Your task to perform on an android device: toggle pop-ups in chrome Image 0: 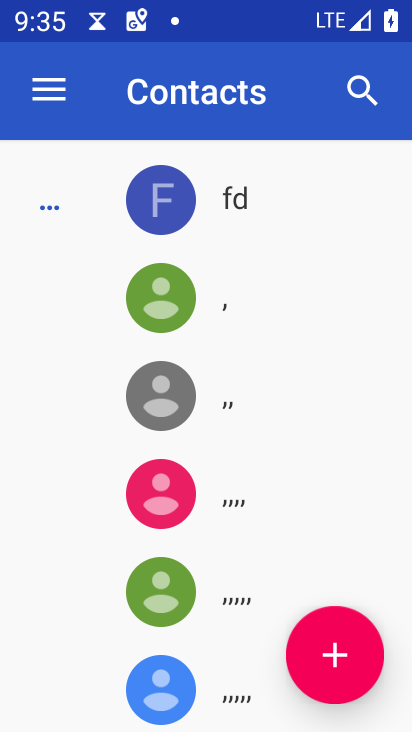
Step 0: press back button
Your task to perform on an android device: toggle pop-ups in chrome Image 1: 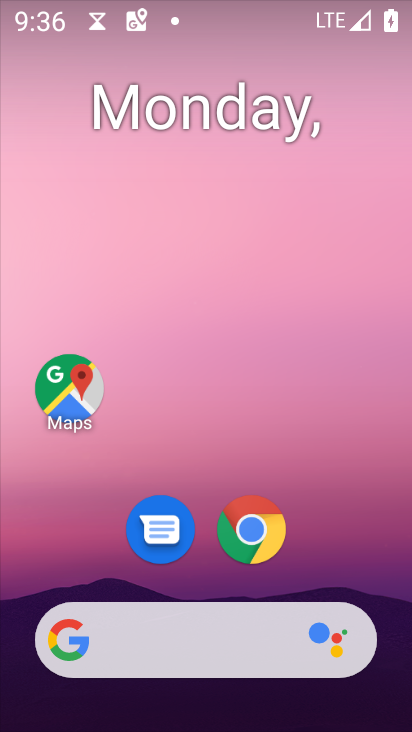
Step 1: drag from (313, 662) to (206, 255)
Your task to perform on an android device: toggle pop-ups in chrome Image 2: 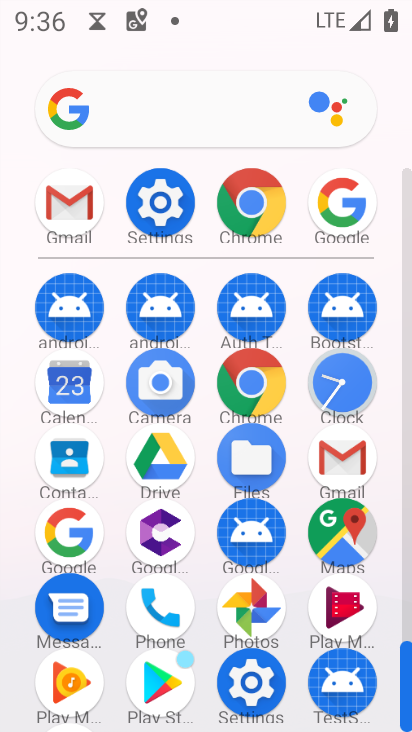
Step 2: click (260, 208)
Your task to perform on an android device: toggle pop-ups in chrome Image 3: 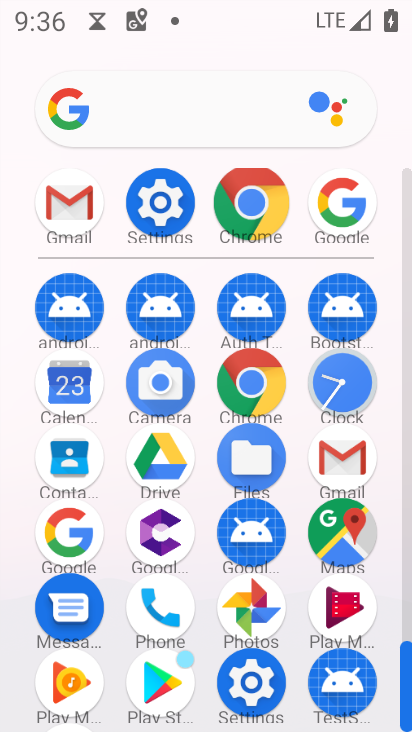
Step 3: click (261, 209)
Your task to perform on an android device: toggle pop-ups in chrome Image 4: 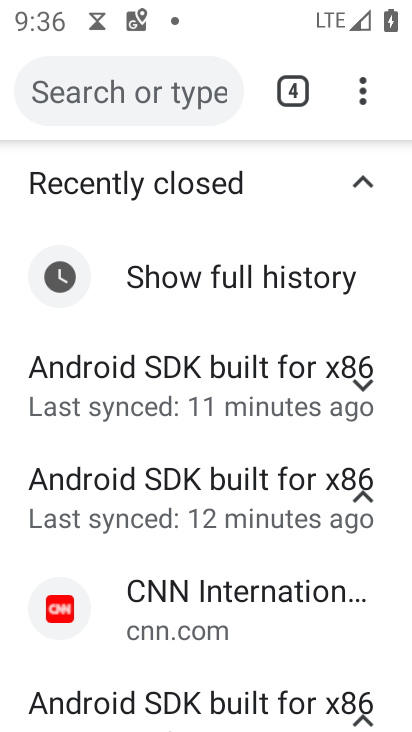
Step 4: click (356, 84)
Your task to perform on an android device: toggle pop-ups in chrome Image 5: 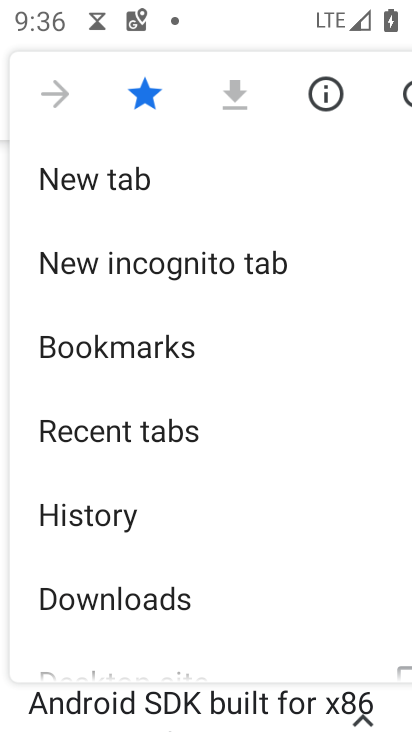
Step 5: drag from (180, 573) to (137, 238)
Your task to perform on an android device: toggle pop-ups in chrome Image 6: 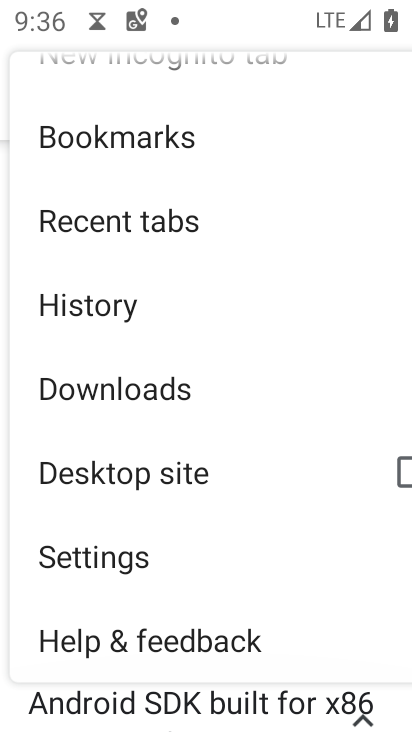
Step 6: drag from (184, 507) to (145, 169)
Your task to perform on an android device: toggle pop-ups in chrome Image 7: 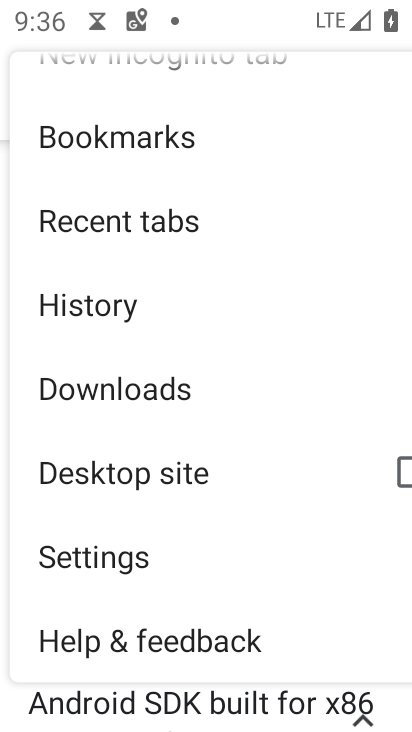
Step 7: click (90, 558)
Your task to perform on an android device: toggle pop-ups in chrome Image 8: 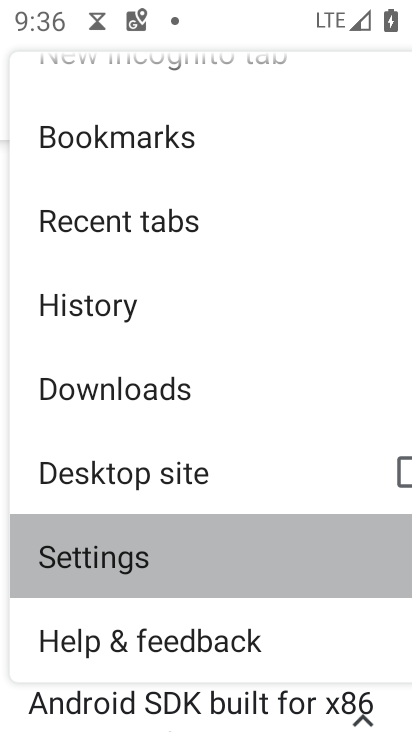
Step 8: click (90, 558)
Your task to perform on an android device: toggle pop-ups in chrome Image 9: 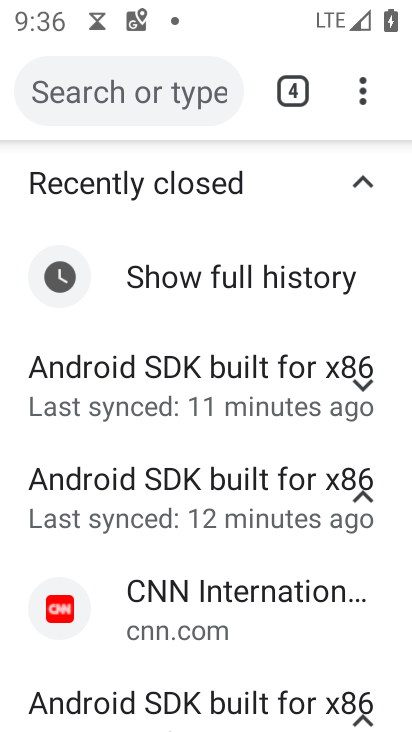
Step 9: click (90, 558)
Your task to perform on an android device: toggle pop-ups in chrome Image 10: 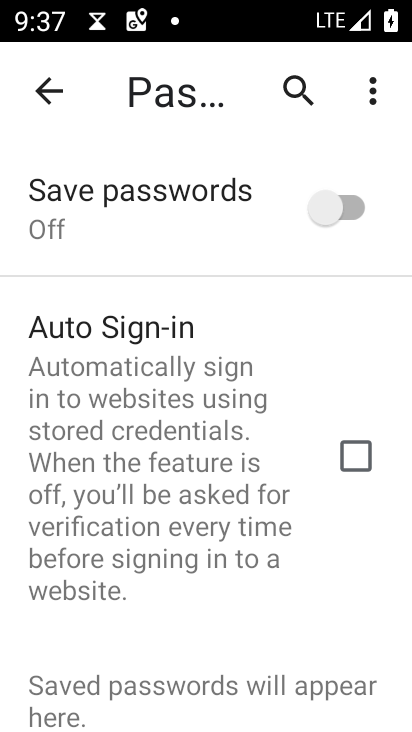
Step 10: click (46, 90)
Your task to perform on an android device: toggle pop-ups in chrome Image 11: 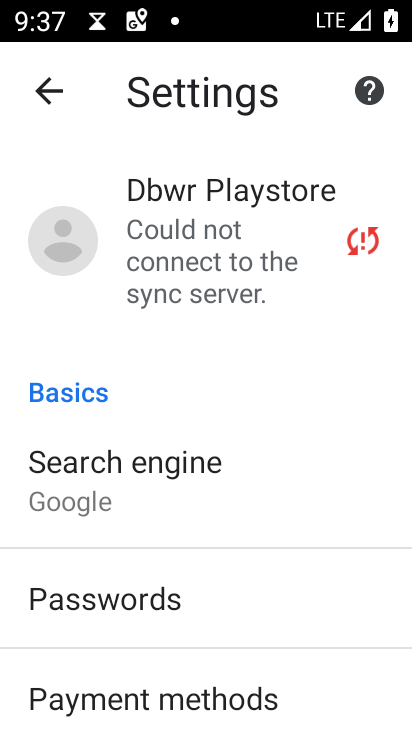
Step 11: drag from (229, 565) to (242, 140)
Your task to perform on an android device: toggle pop-ups in chrome Image 12: 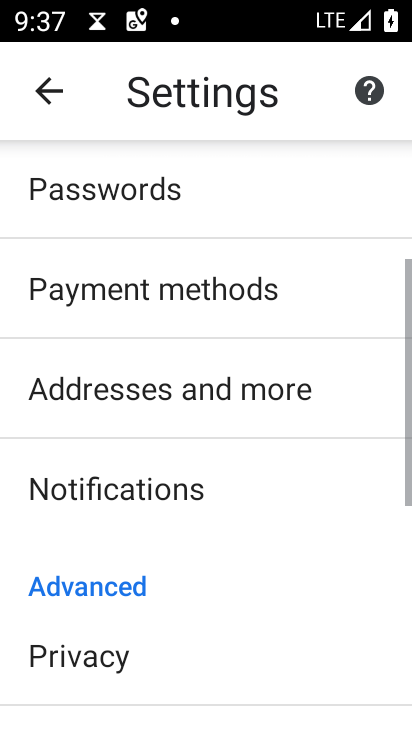
Step 12: drag from (308, 546) to (259, 189)
Your task to perform on an android device: toggle pop-ups in chrome Image 13: 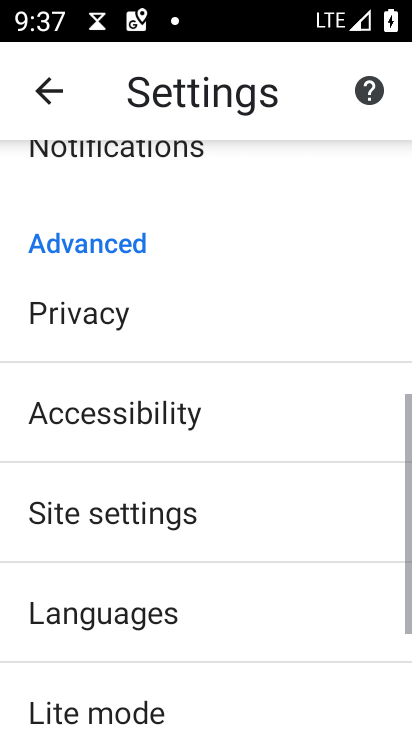
Step 13: drag from (251, 476) to (241, 125)
Your task to perform on an android device: toggle pop-ups in chrome Image 14: 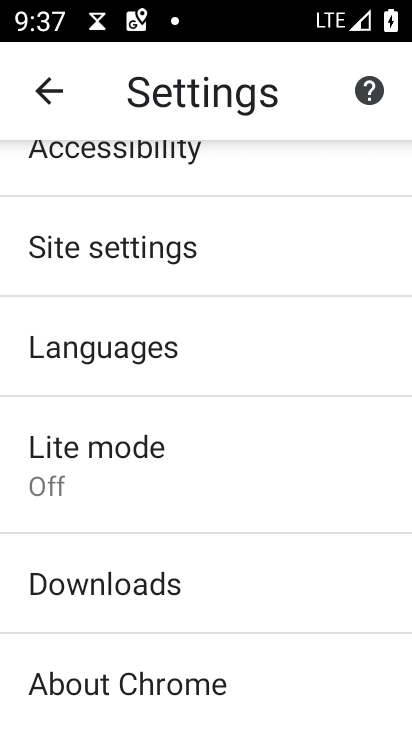
Step 14: click (96, 223)
Your task to perform on an android device: toggle pop-ups in chrome Image 15: 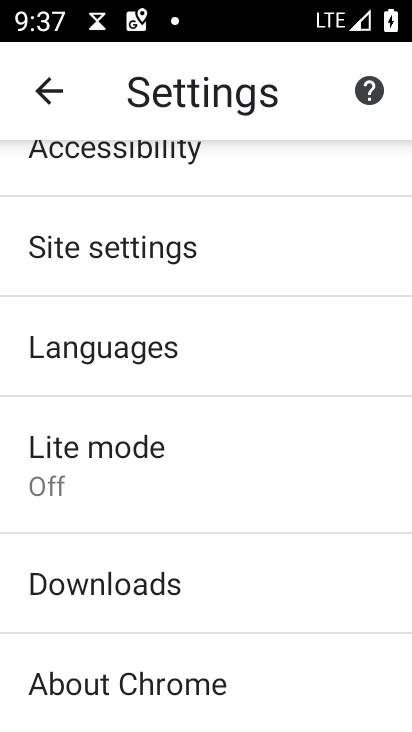
Step 15: click (100, 229)
Your task to perform on an android device: toggle pop-ups in chrome Image 16: 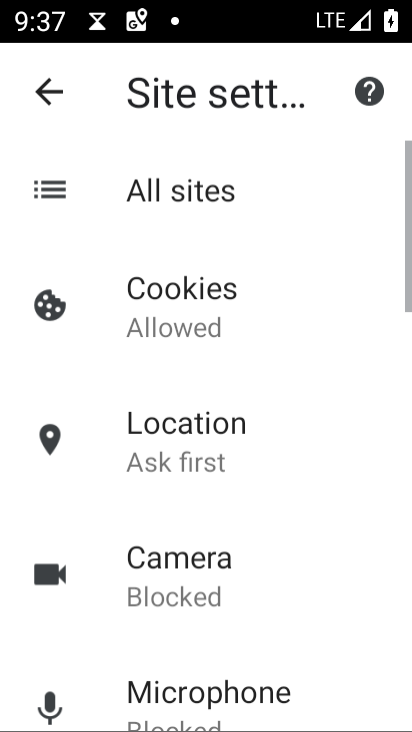
Step 16: click (108, 239)
Your task to perform on an android device: toggle pop-ups in chrome Image 17: 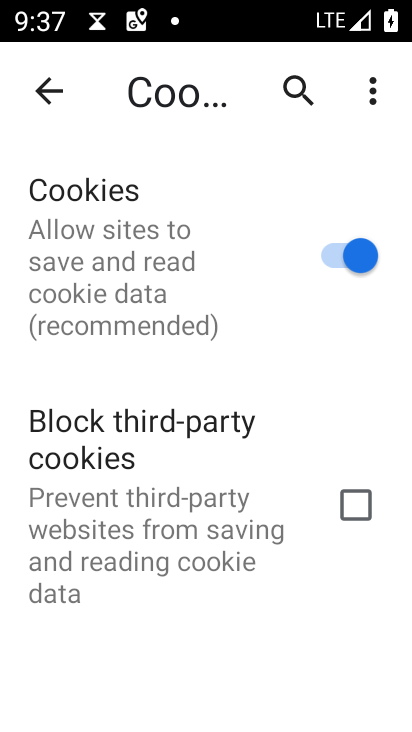
Step 17: click (48, 110)
Your task to perform on an android device: toggle pop-ups in chrome Image 18: 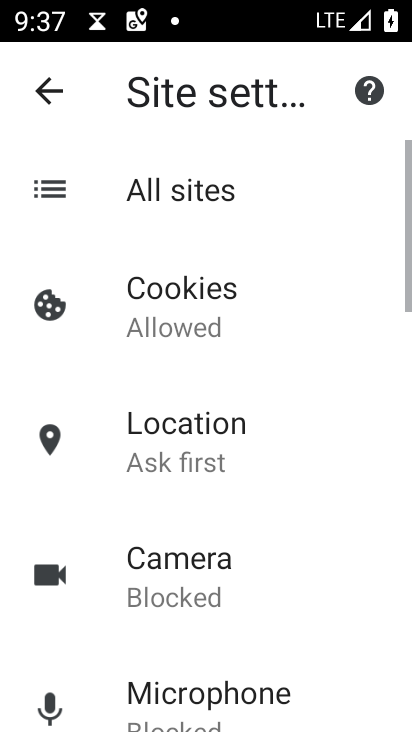
Step 18: drag from (207, 494) to (254, 192)
Your task to perform on an android device: toggle pop-ups in chrome Image 19: 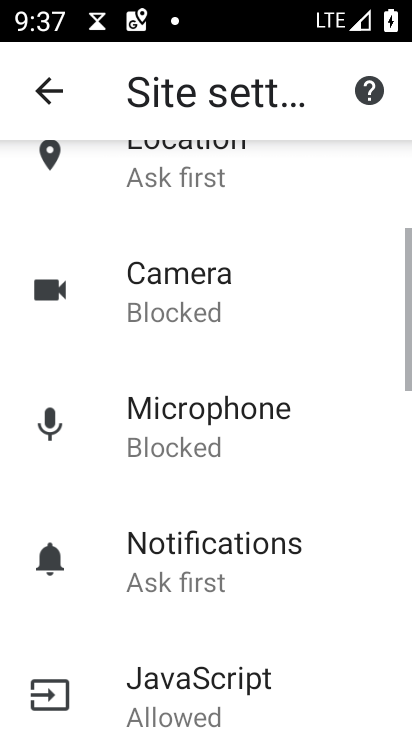
Step 19: drag from (265, 502) to (235, 144)
Your task to perform on an android device: toggle pop-ups in chrome Image 20: 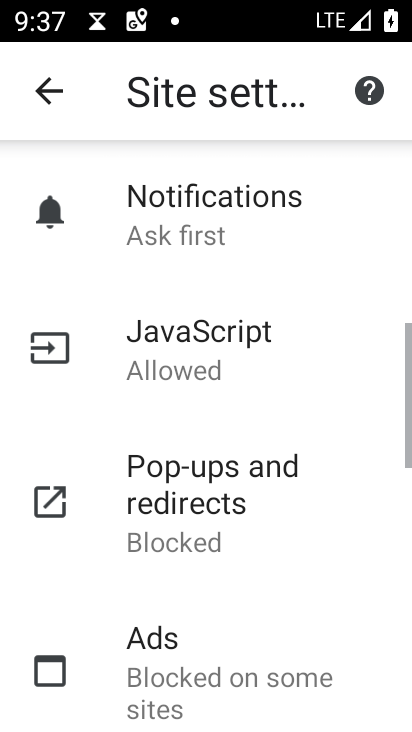
Step 20: drag from (251, 529) to (249, 222)
Your task to perform on an android device: toggle pop-ups in chrome Image 21: 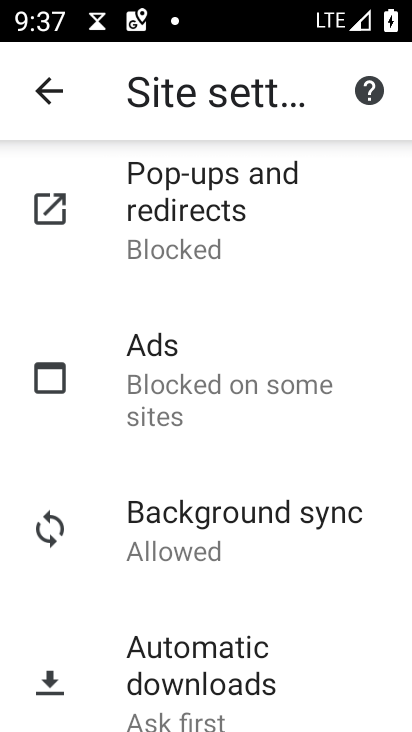
Step 21: drag from (216, 619) to (163, 197)
Your task to perform on an android device: toggle pop-ups in chrome Image 22: 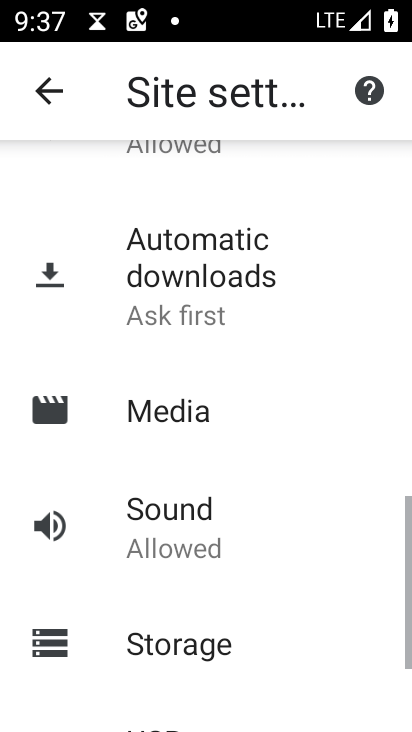
Step 22: drag from (127, 513) to (128, 181)
Your task to perform on an android device: toggle pop-ups in chrome Image 23: 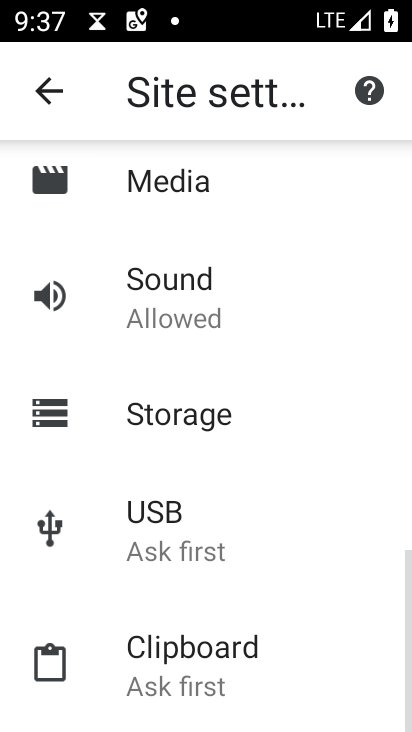
Step 23: drag from (219, 496) to (190, 217)
Your task to perform on an android device: toggle pop-ups in chrome Image 24: 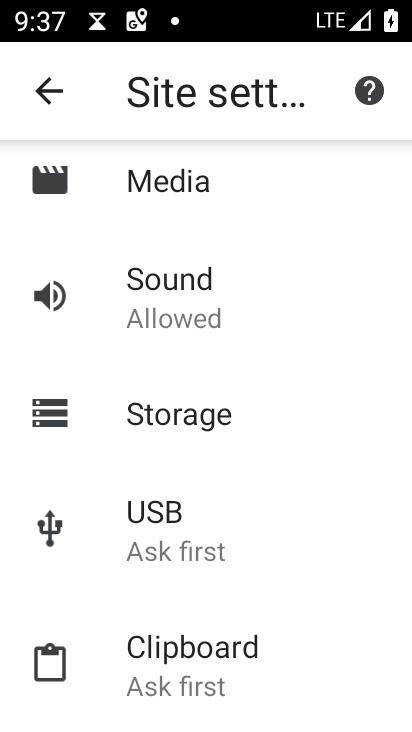
Step 24: drag from (223, 454) to (216, 204)
Your task to perform on an android device: toggle pop-ups in chrome Image 25: 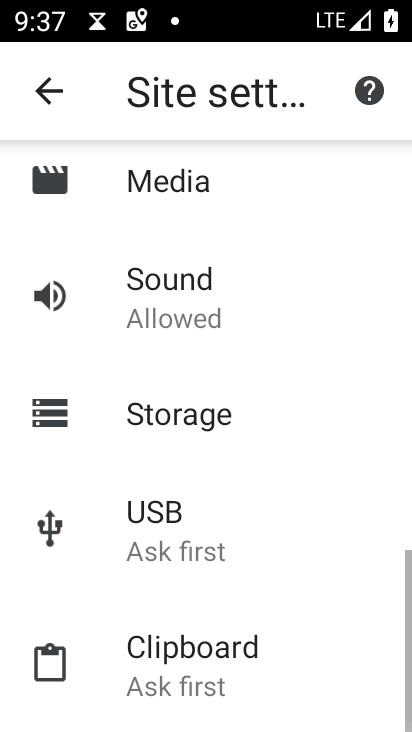
Step 25: drag from (259, 545) to (217, 282)
Your task to perform on an android device: toggle pop-ups in chrome Image 26: 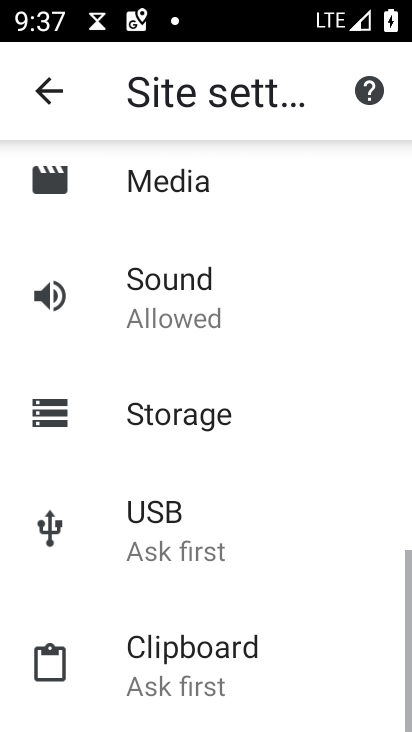
Step 26: drag from (224, 271) to (266, 643)
Your task to perform on an android device: toggle pop-ups in chrome Image 27: 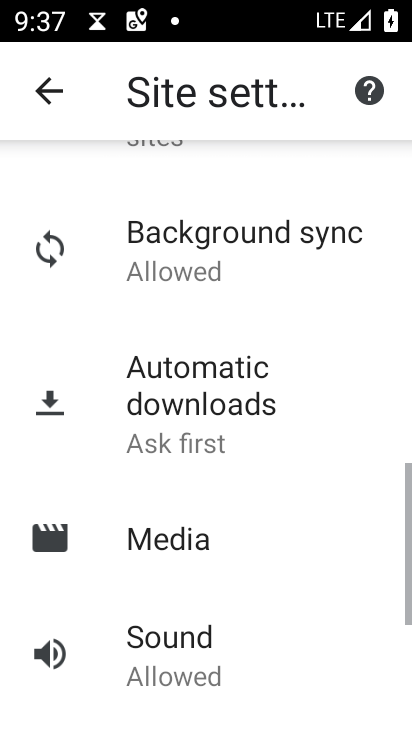
Step 27: drag from (132, 275) to (234, 549)
Your task to perform on an android device: toggle pop-ups in chrome Image 28: 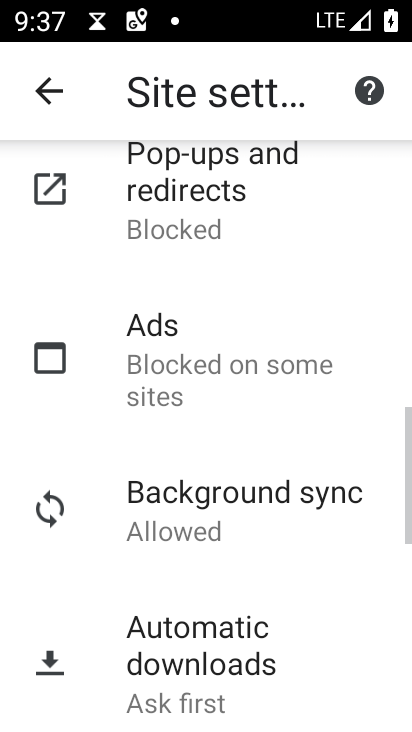
Step 28: drag from (209, 332) to (255, 623)
Your task to perform on an android device: toggle pop-ups in chrome Image 29: 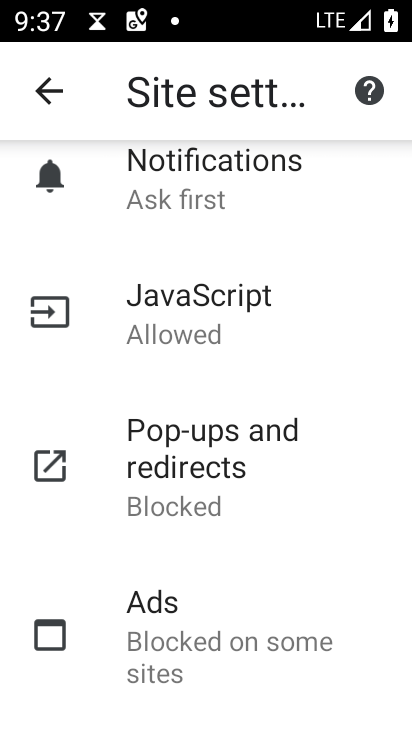
Step 29: click (179, 460)
Your task to perform on an android device: toggle pop-ups in chrome Image 30: 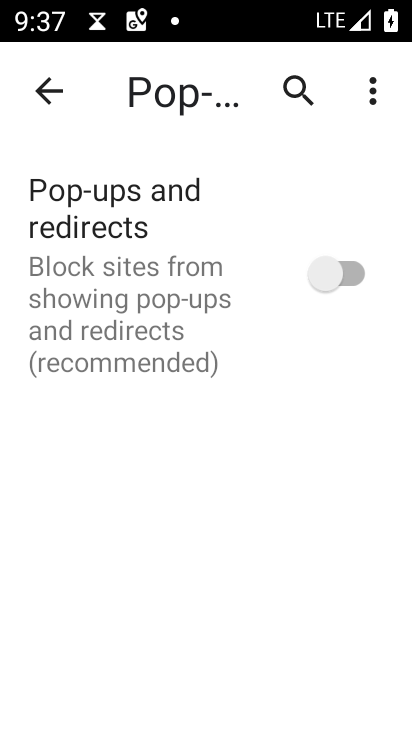
Step 30: click (327, 272)
Your task to perform on an android device: toggle pop-ups in chrome Image 31: 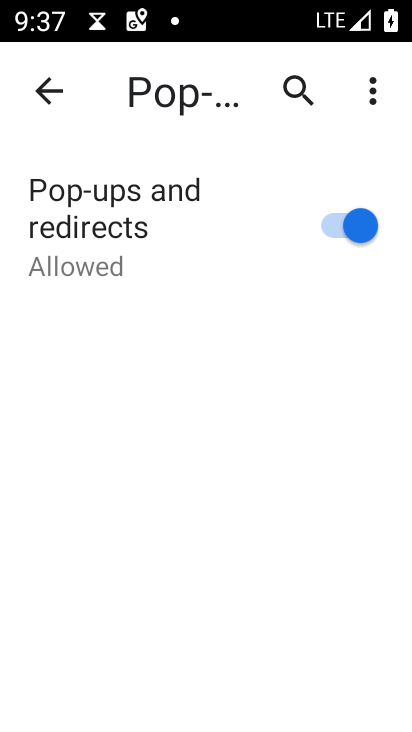
Step 31: task complete